Your task to perform on an android device: check battery use Image 0: 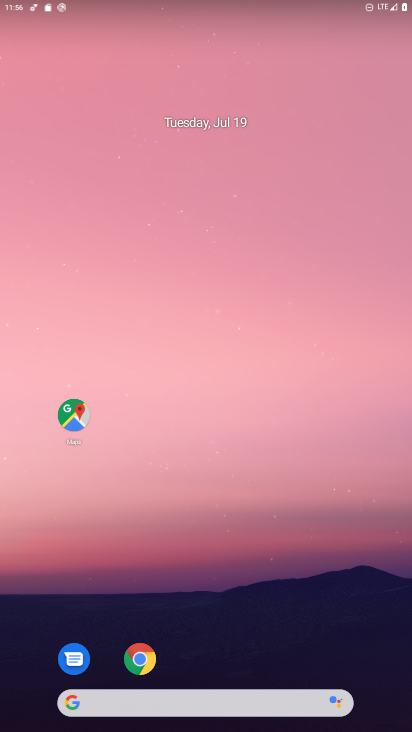
Step 0: drag from (346, 599) to (278, 97)
Your task to perform on an android device: check battery use Image 1: 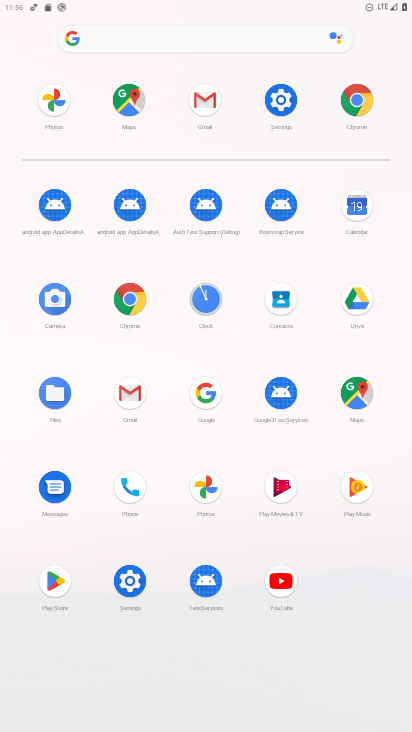
Step 1: click (275, 91)
Your task to perform on an android device: check battery use Image 2: 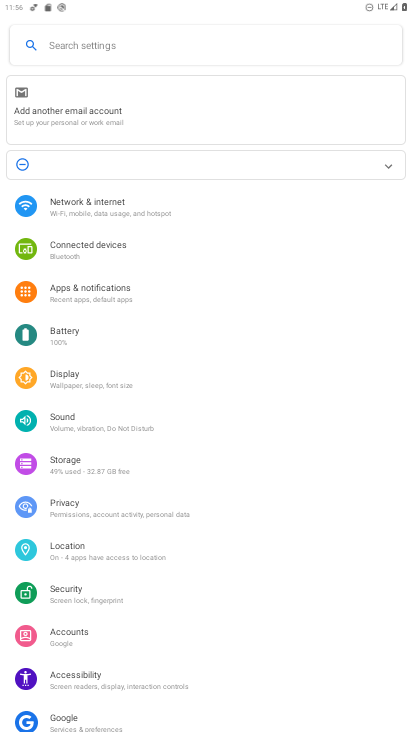
Step 2: click (67, 337)
Your task to perform on an android device: check battery use Image 3: 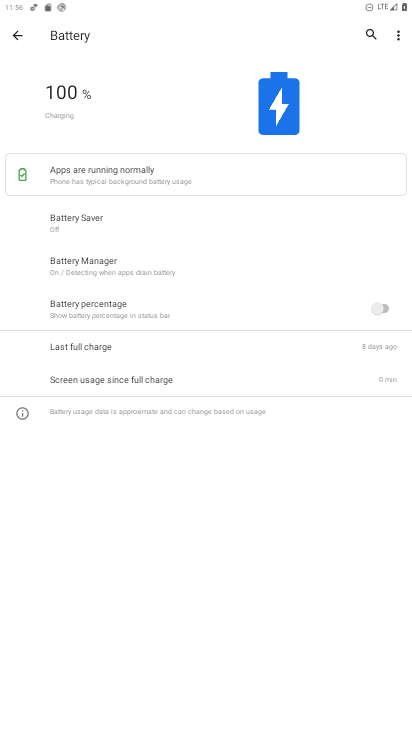
Step 3: click (399, 32)
Your task to perform on an android device: check battery use Image 4: 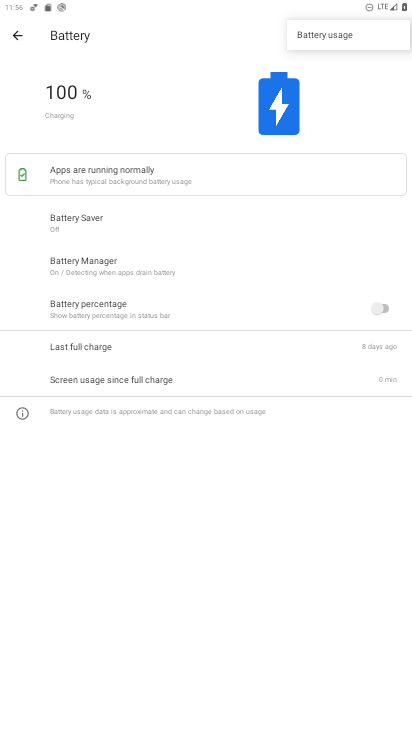
Step 4: click (353, 38)
Your task to perform on an android device: check battery use Image 5: 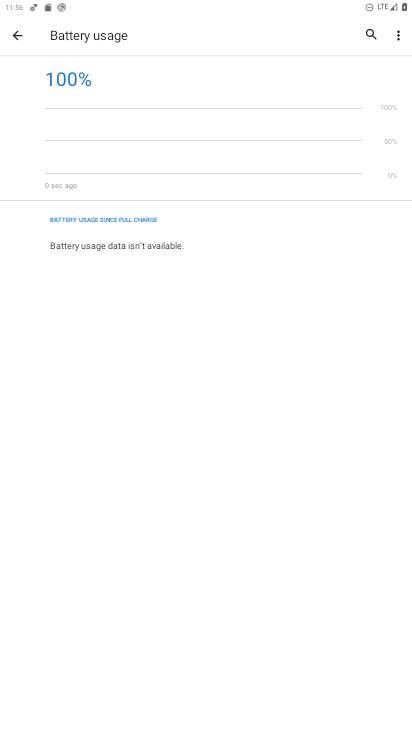
Step 5: task complete